Your task to perform on an android device: Open calendar and show me the fourth week of next month Image 0: 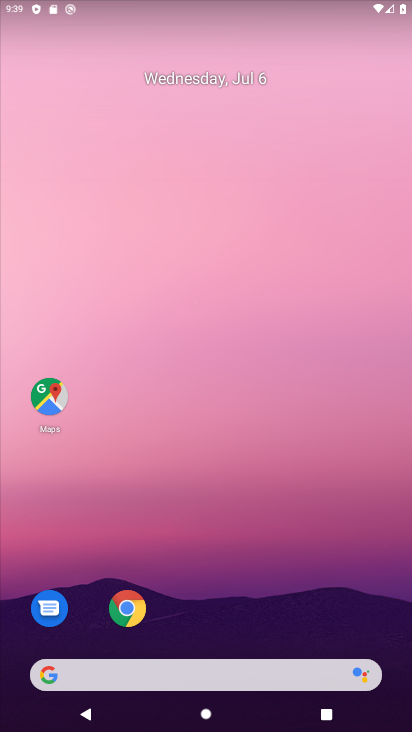
Step 0: drag from (207, 661) to (207, 143)
Your task to perform on an android device: Open calendar and show me the fourth week of next month Image 1: 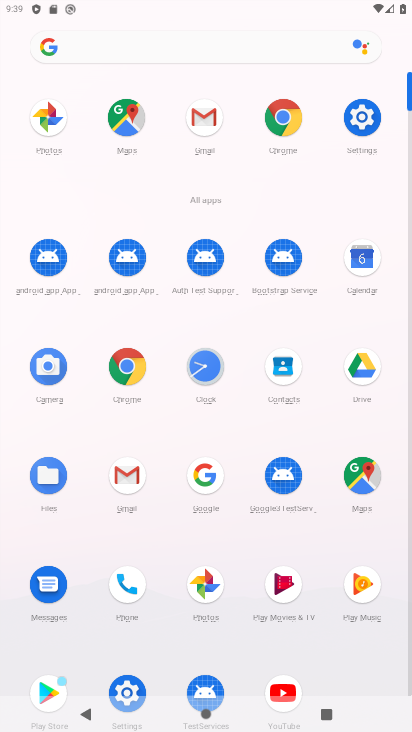
Step 1: click (367, 483)
Your task to perform on an android device: Open calendar and show me the fourth week of next month Image 2: 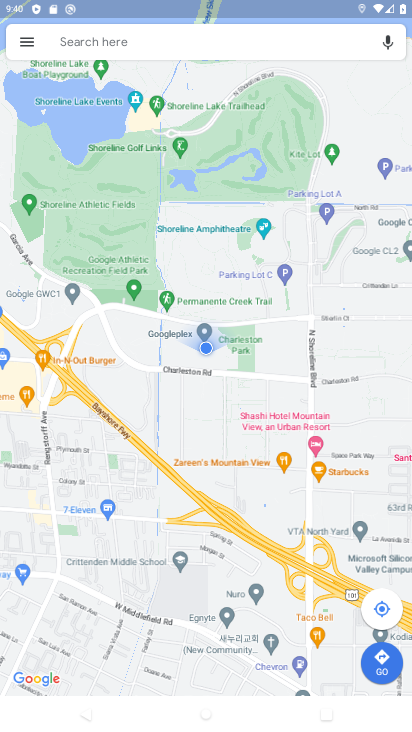
Step 2: press home button
Your task to perform on an android device: Open calendar and show me the fourth week of next month Image 3: 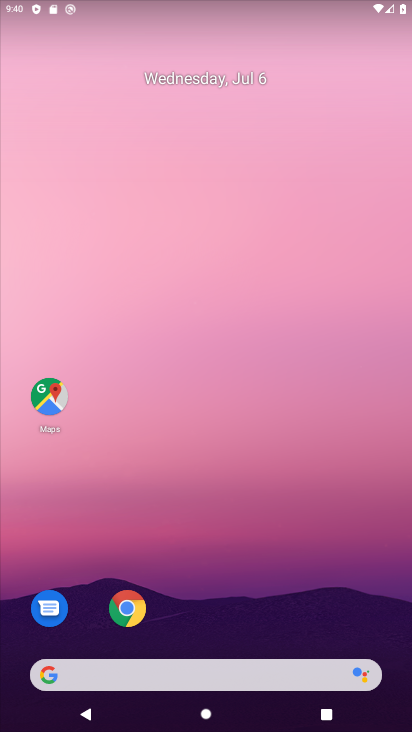
Step 3: drag from (196, 647) to (166, 242)
Your task to perform on an android device: Open calendar and show me the fourth week of next month Image 4: 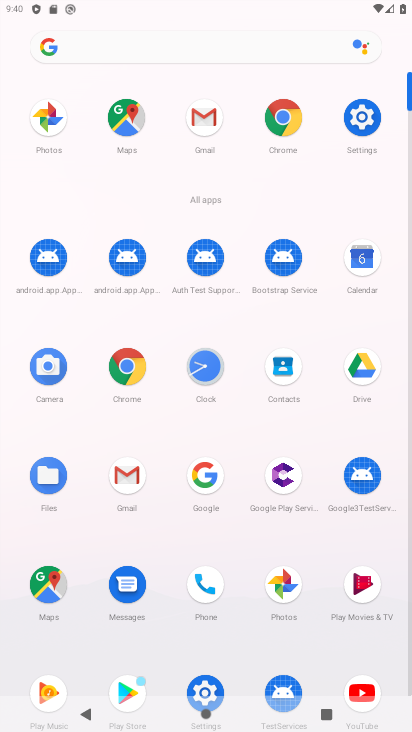
Step 4: click (357, 255)
Your task to perform on an android device: Open calendar and show me the fourth week of next month Image 5: 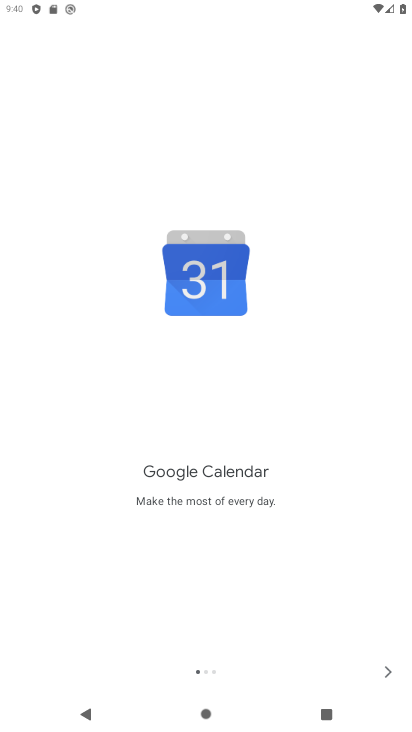
Step 5: click (387, 670)
Your task to perform on an android device: Open calendar and show me the fourth week of next month Image 6: 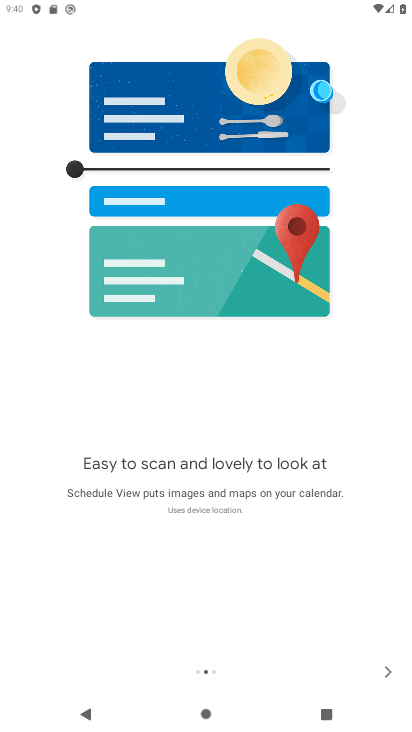
Step 6: click (387, 670)
Your task to perform on an android device: Open calendar and show me the fourth week of next month Image 7: 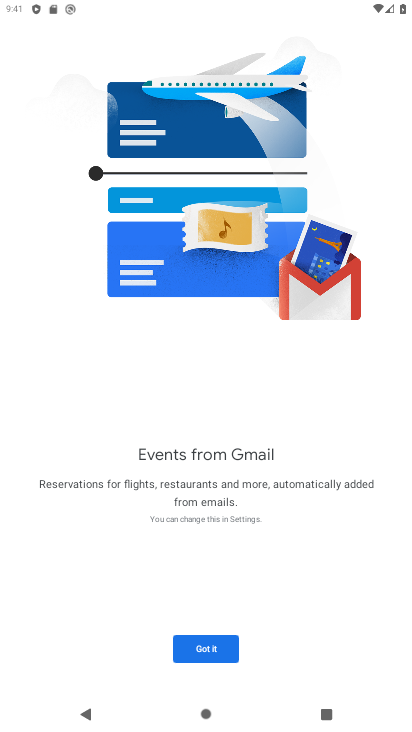
Step 7: click (218, 654)
Your task to perform on an android device: Open calendar and show me the fourth week of next month Image 8: 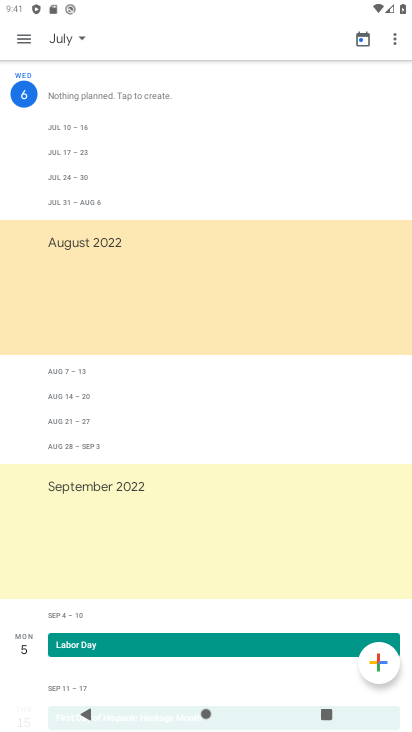
Step 8: click (67, 44)
Your task to perform on an android device: Open calendar and show me the fourth week of next month Image 9: 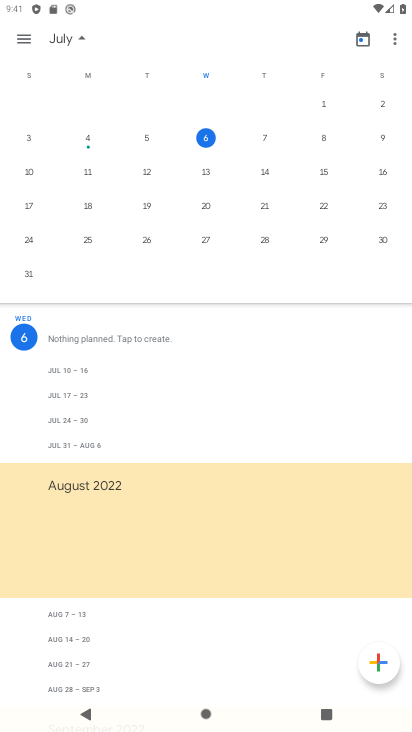
Step 9: click (25, 206)
Your task to perform on an android device: Open calendar and show me the fourth week of next month Image 10: 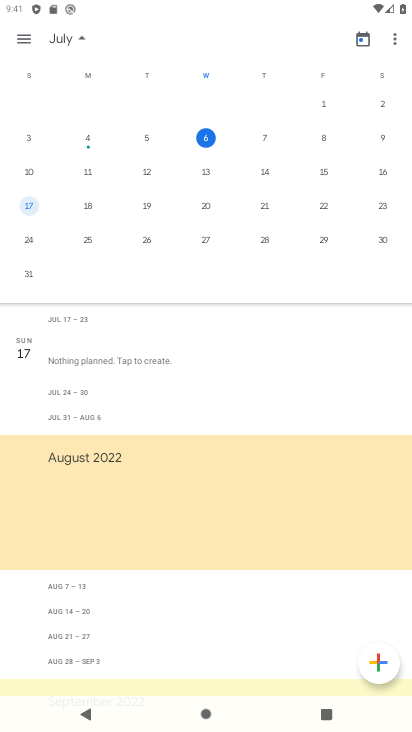
Step 10: drag from (301, 192) to (16, 201)
Your task to perform on an android device: Open calendar and show me the fourth week of next month Image 11: 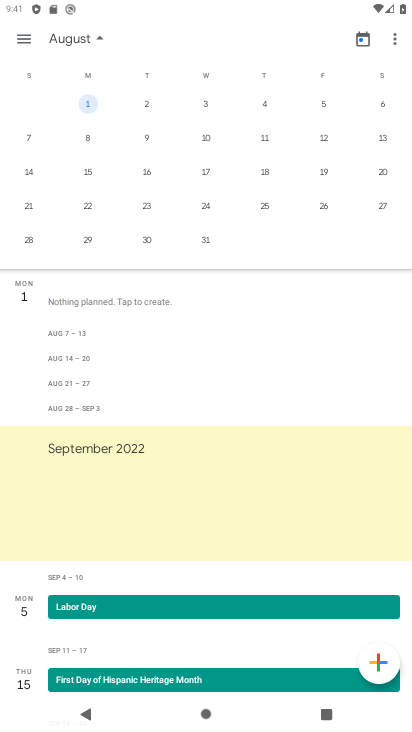
Step 11: click (31, 209)
Your task to perform on an android device: Open calendar and show me the fourth week of next month Image 12: 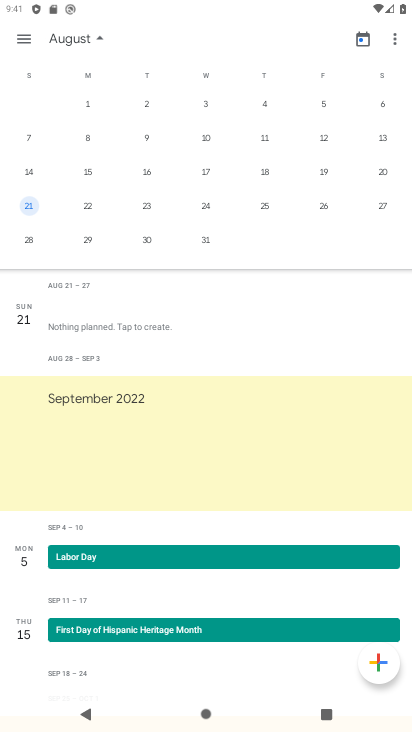
Step 12: click (99, 323)
Your task to perform on an android device: Open calendar and show me the fourth week of next month Image 13: 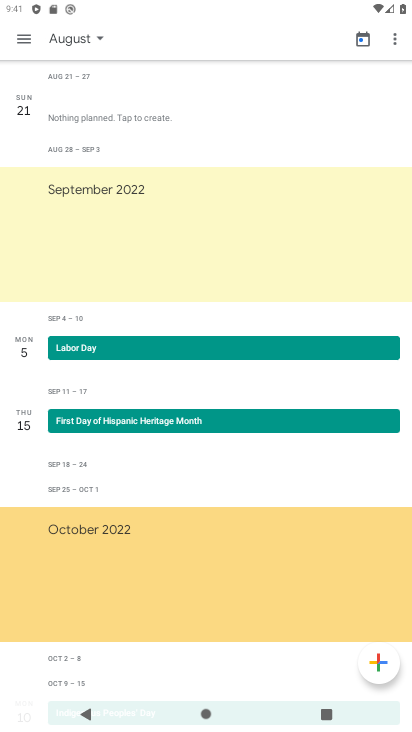
Step 13: task complete